Your task to perform on an android device: choose inbox layout in the gmail app Image 0: 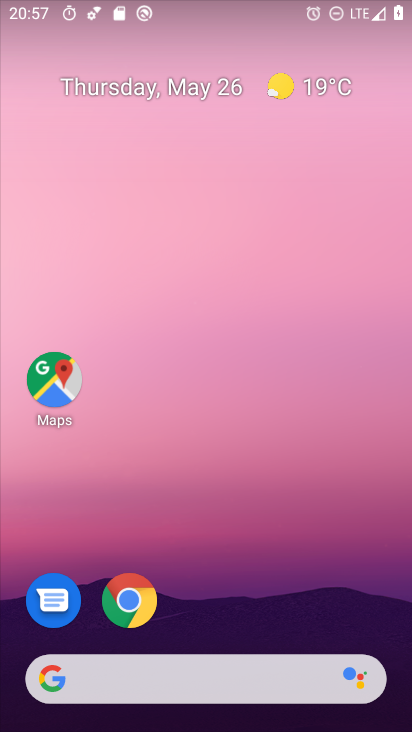
Step 0: drag from (247, 613) to (235, 191)
Your task to perform on an android device: choose inbox layout in the gmail app Image 1: 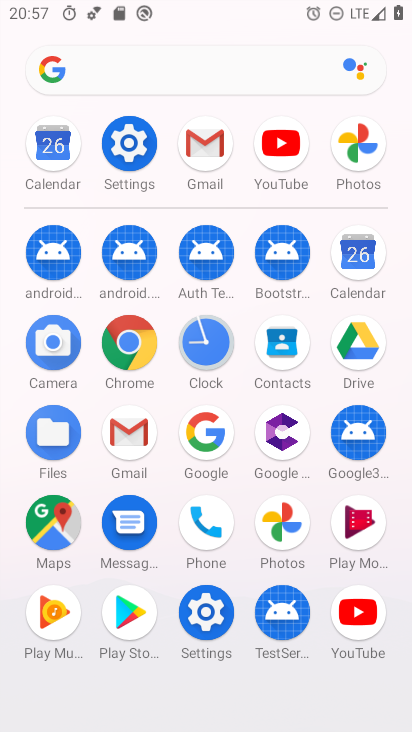
Step 1: click (199, 144)
Your task to perform on an android device: choose inbox layout in the gmail app Image 2: 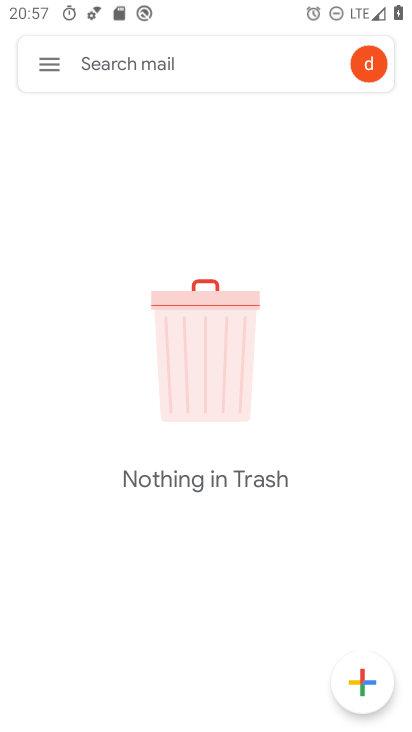
Step 2: click (65, 70)
Your task to perform on an android device: choose inbox layout in the gmail app Image 3: 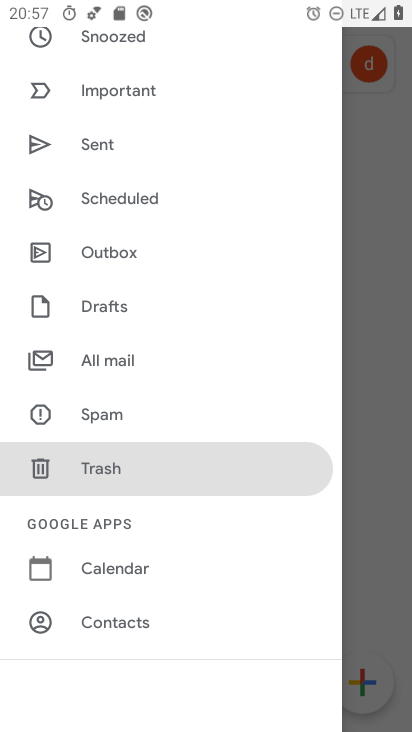
Step 3: drag from (222, 591) to (239, 166)
Your task to perform on an android device: choose inbox layout in the gmail app Image 4: 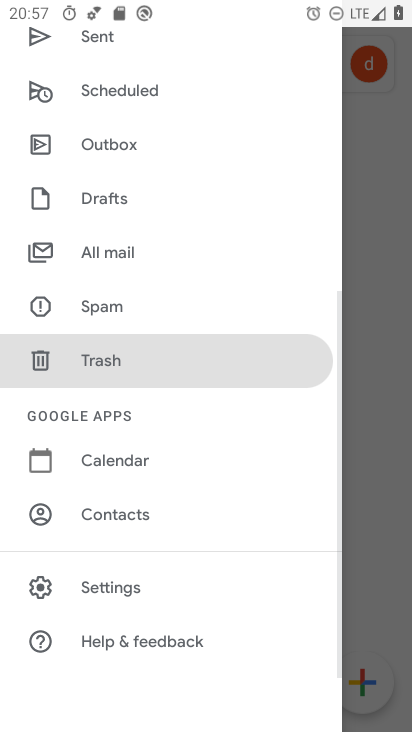
Step 4: click (109, 588)
Your task to perform on an android device: choose inbox layout in the gmail app Image 5: 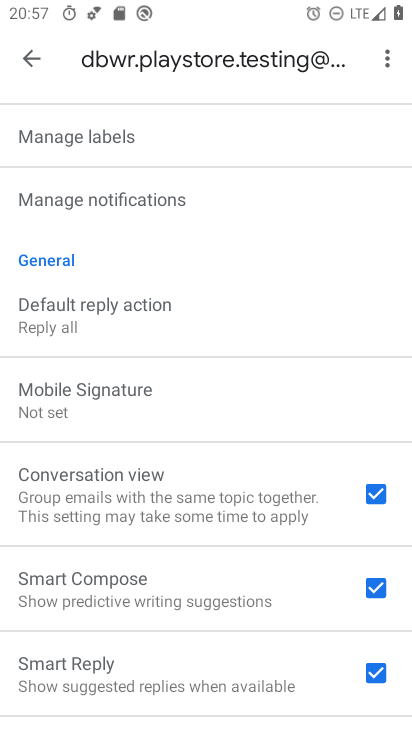
Step 5: drag from (265, 244) to (332, 616)
Your task to perform on an android device: choose inbox layout in the gmail app Image 6: 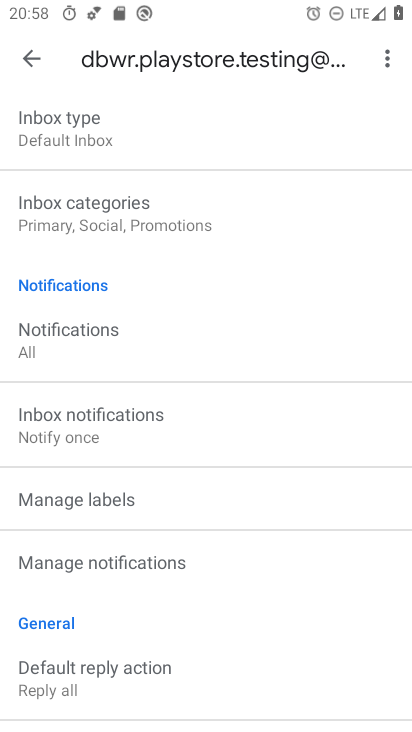
Step 6: click (100, 209)
Your task to perform on an android device: choose inbox layout in the gmail app Image 7: 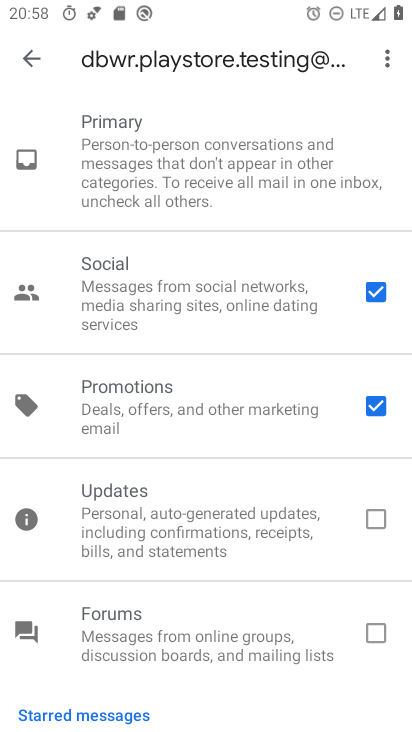
Step 7: task complete